Your task to perform on an android device: See recent photos Image 0: 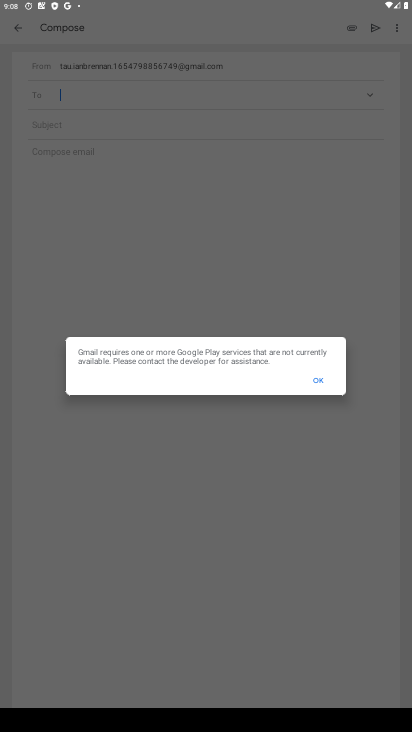
Step 0: drag from (199, 612) to (236, 256)
Your task to perform on an android device: See recent photos Image 1: 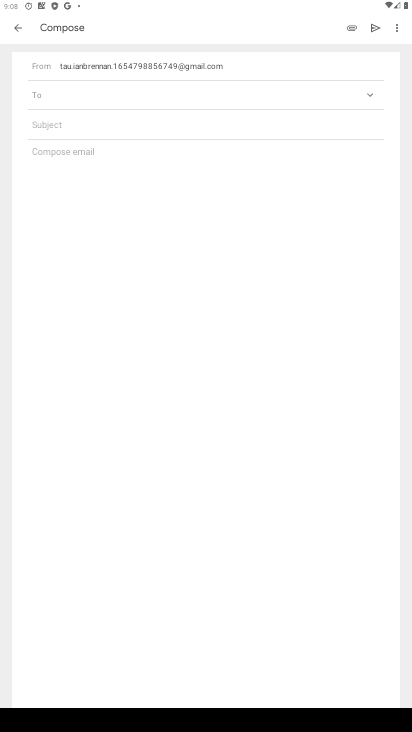
Step 1: press home button
Your task to perform on an android device: See recent photos Image 2: 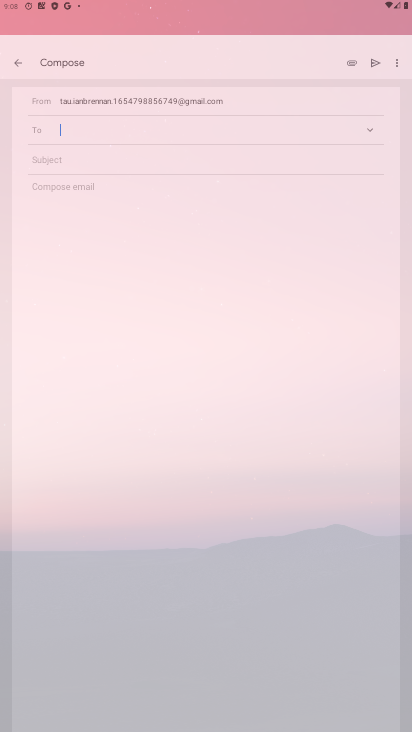
Step 2: drag from (200, 574) to (248, 140)
Your task to perform on an android device: See recent photos Image 3: 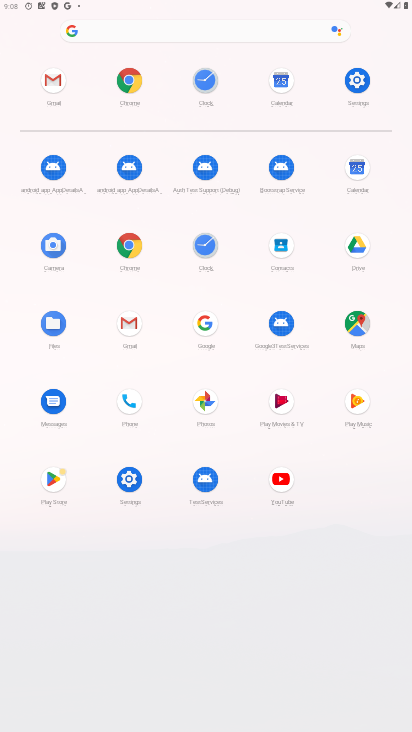
Step 3: drag from (167, 605) to (186, 184)
Your task to perform on an android device: See recent photos Image 4: 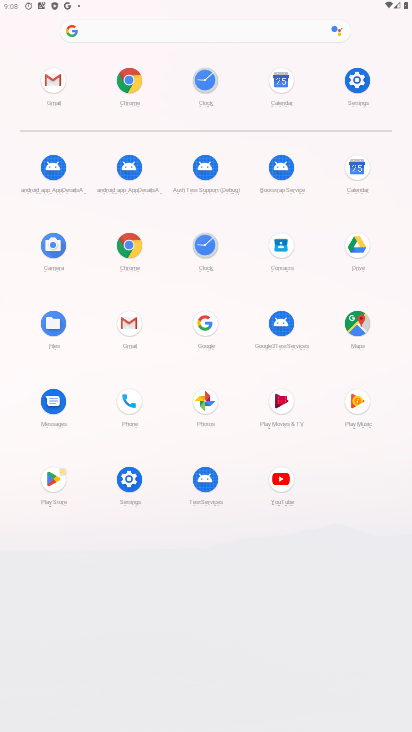
Step 4: click (196, 403)
Your task to perform on an android device: See recent photos Image 5: 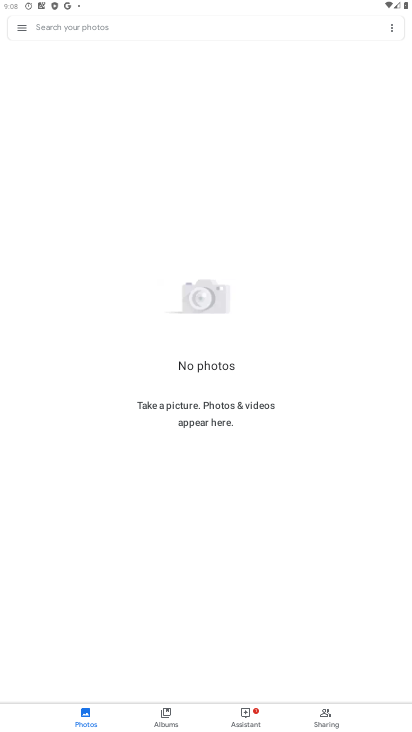
Step 5: drag from (180, 587) to (268, 249)
Your task to perform on an android device: See recent photos Image 6: 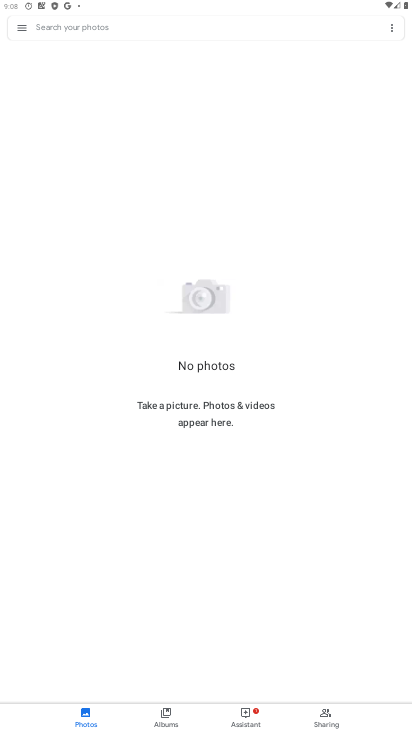
Step 6: click (298, 199)
Your task to perform on an android device: See recent photos Image 7: 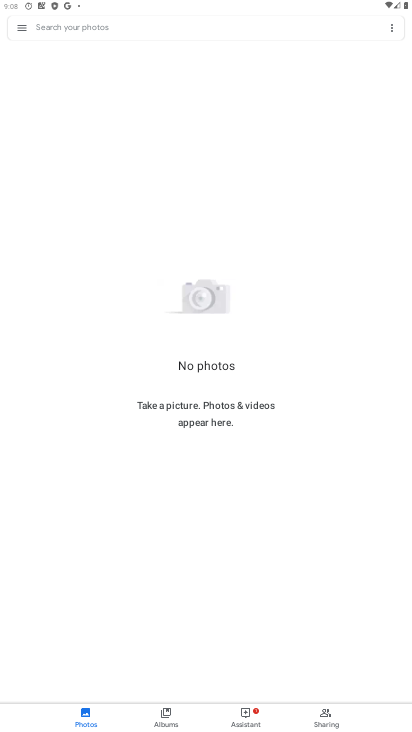
Step 7: click (170, 723)
Your task to perform on an android device: See recent photos Image 8: 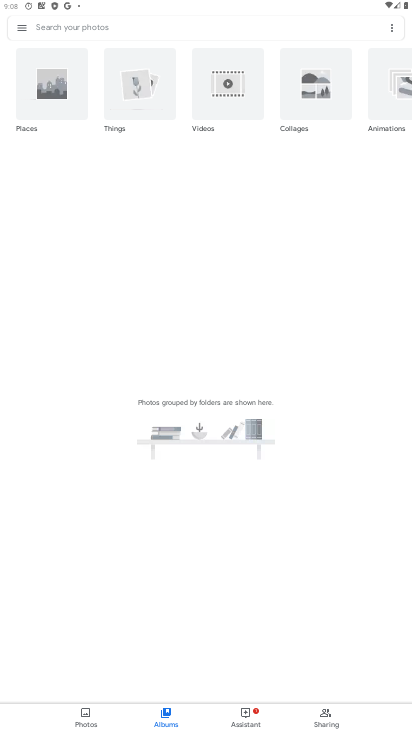
Step 8: drag from (239, 612) to (328, 274)
Your task to perform on an android device: See recent photos Image 9: 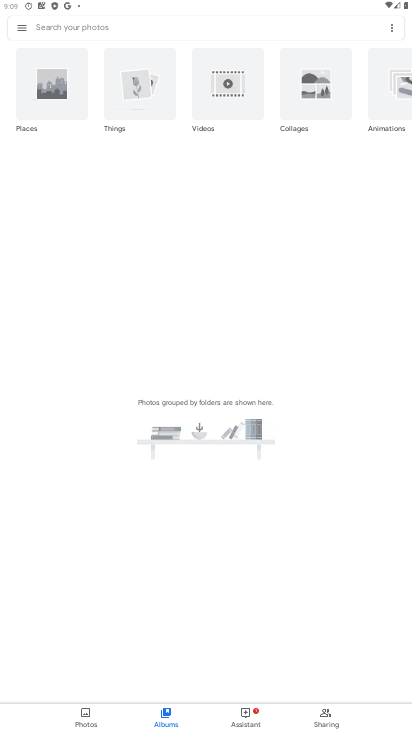
Step 9: drag from (240, 439) to (284, 213)
Your task to perform on an android device: See recent photos Image 10: 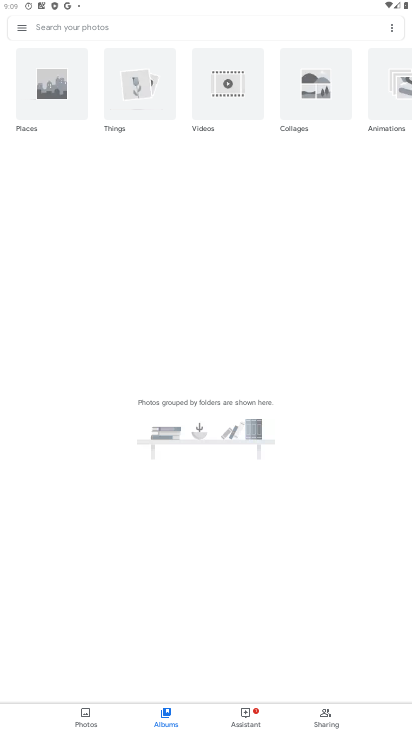
Step 10: drag from (252, 669) to (294, 415)
Your task to perform on an android device: See recent photos Image 11: 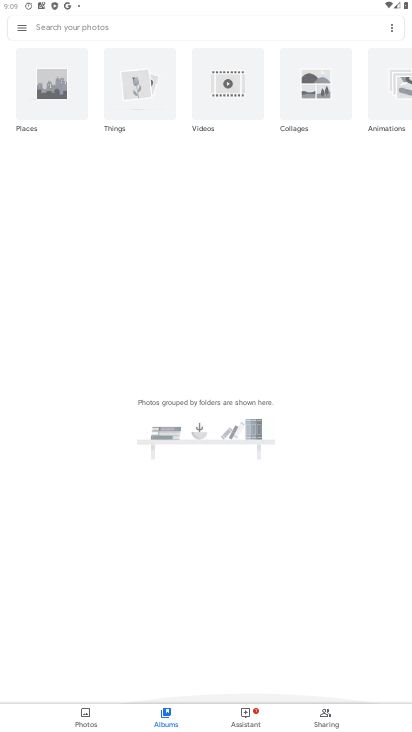
Step 11: click (299, 379)
Your task to perform on an android device: See recent photos Image 12: 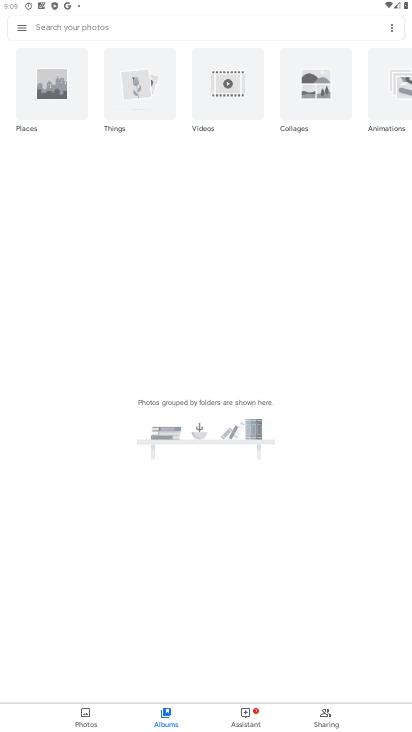
Step 12: click (87, 716)
Your task to perform on an android device: See recent photos Image 13: 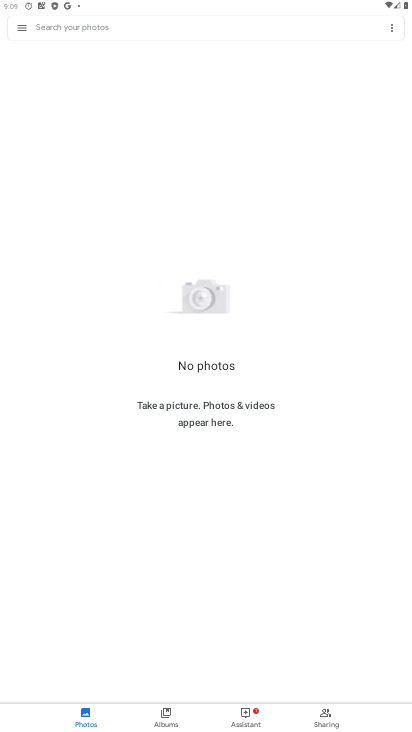
Step 13: task complete